Your task to perform on an android device: find photos in the google photos app Image 0: 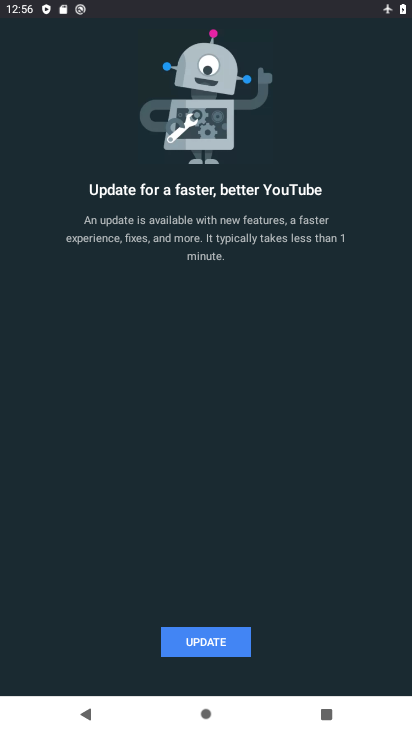
Step 0: press home button
Your task to perform on an android device: find photos in the google photos app Image 1: 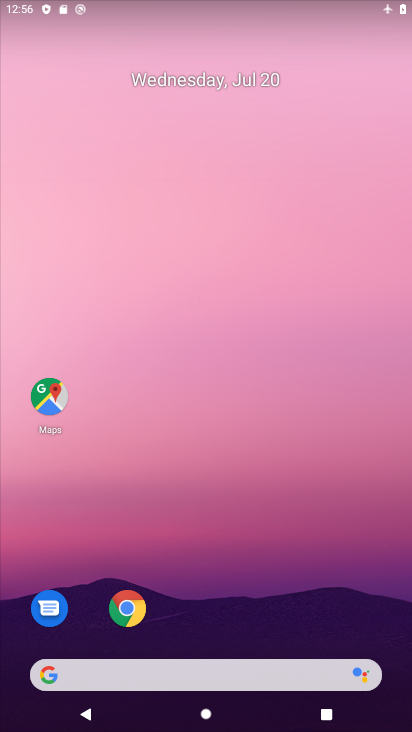
Step 1: drag from (217, 650) to (271, 120)
Your task to perform on an android device: find photos in the google photos app Image 2: 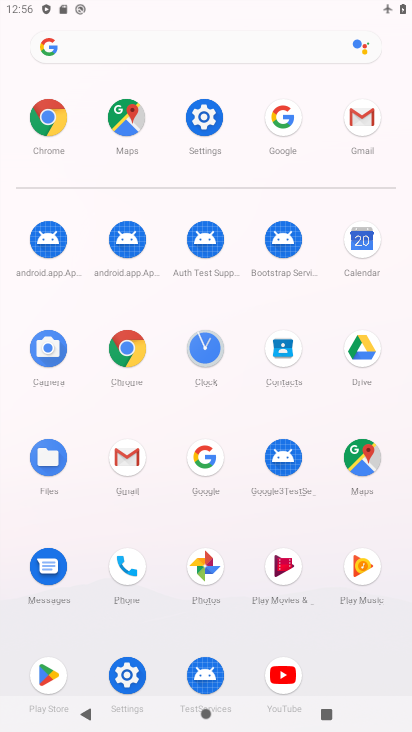
Step 2: click (195, 567)
Your task to perform on an android device: find photos in the google photos app Image 3: 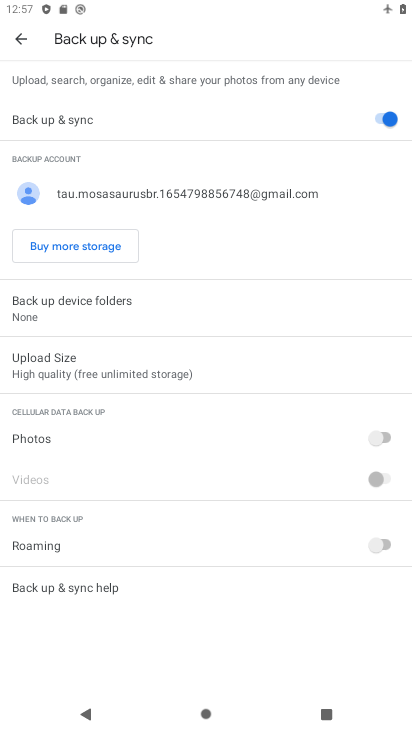
Step 3: click (22, 29)
Your task to perform on an android device: find photos in the google photos app Image 4: 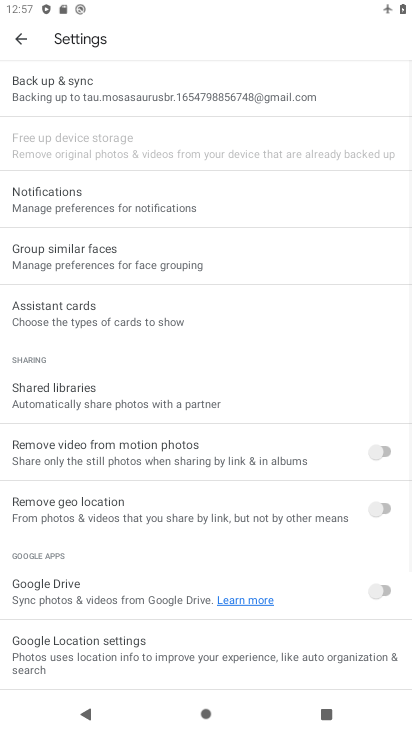
Step 4: click (15, 41)
Your task to perform on an android device: find photos in the google photos app Image 5: 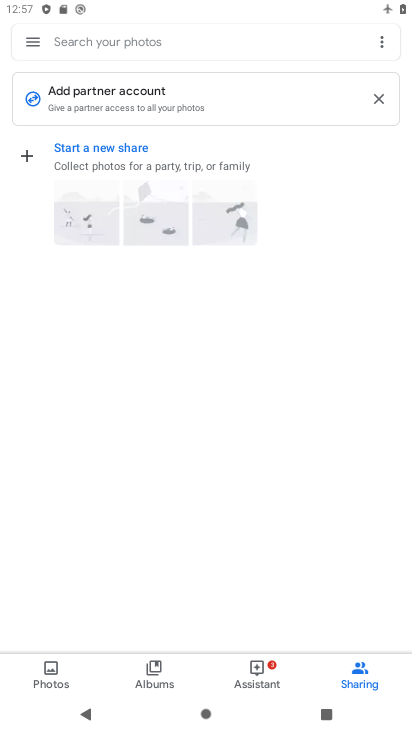
Step 5: click (374, 100)
Your task to perform on an android device: find photos in the google photos app Image 6: 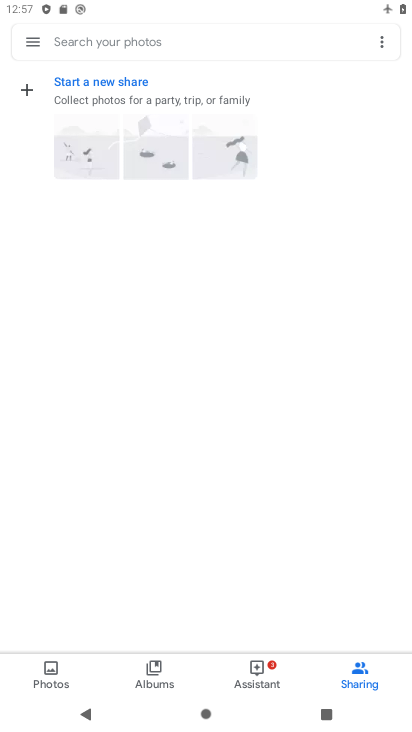
Step 6: task complete